Your task to perform on an android device: Open internet settings Image 0: 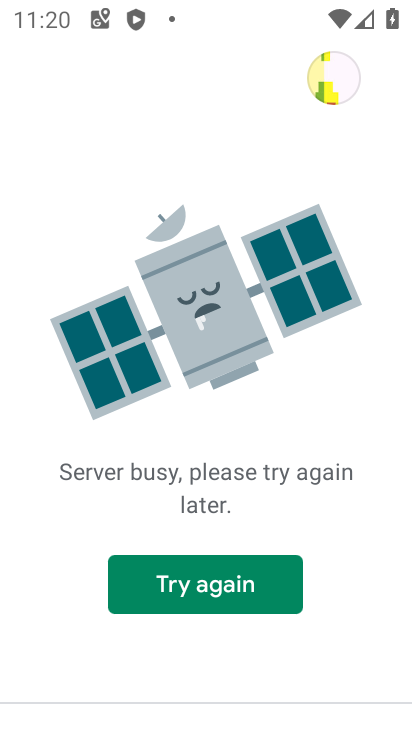
Step 0: press home button
Your task to perform on an android device: Open internet settings Image 1: 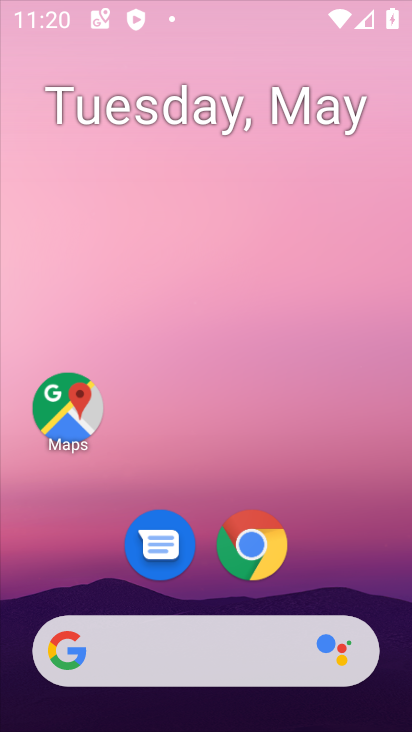
Step 1: drag from (215, 571) to (236, 181)
Your task to perform on an android device: Open internet settings Image 2: 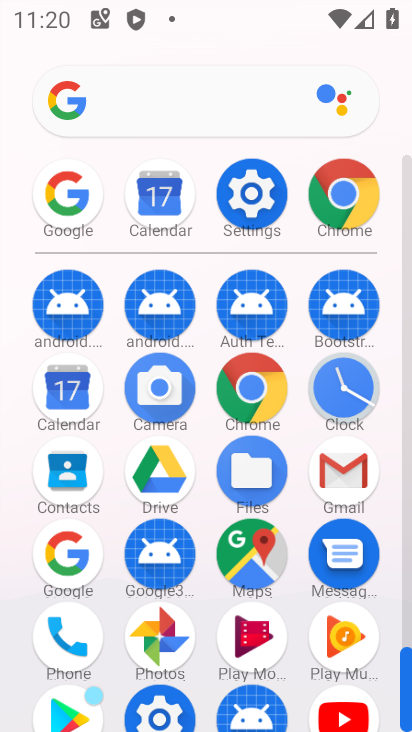
Step 2: click (271, 208)
Your task to perform on an android device: Open internet settings Image 3: 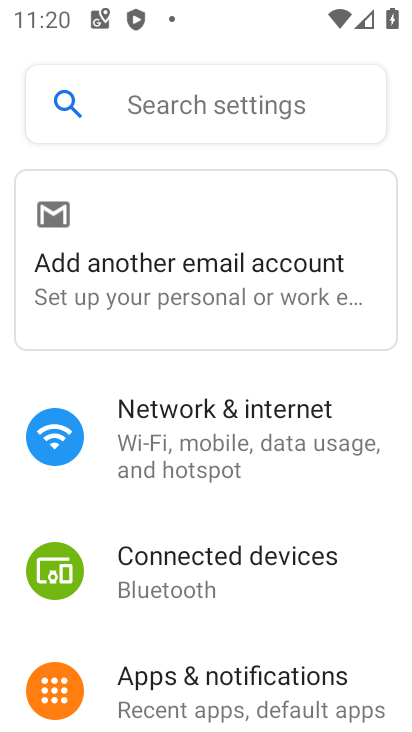
Step 3: click (176, 453)
Your task to perform on an android device: Open internet settings Image 4: 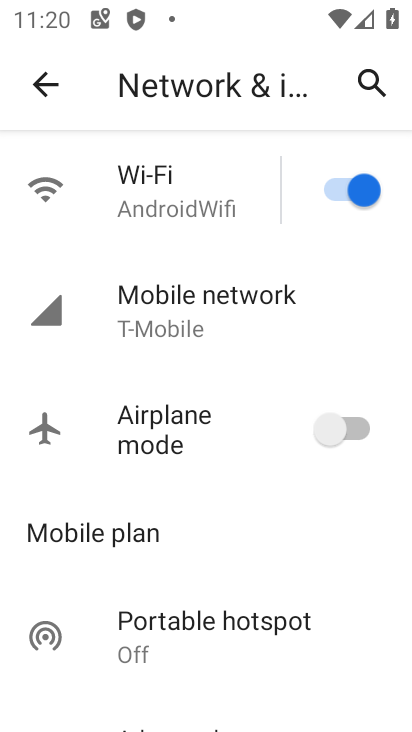
Step 4: click (242, 326)
Your task to perform on an android device: Open internet settings Image 5: 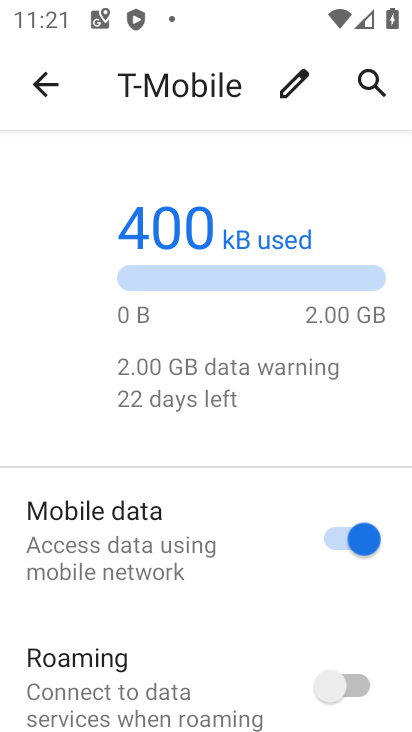
Step 5: task complete